Your task to perform on an android device: Open privacy settings Image 0: 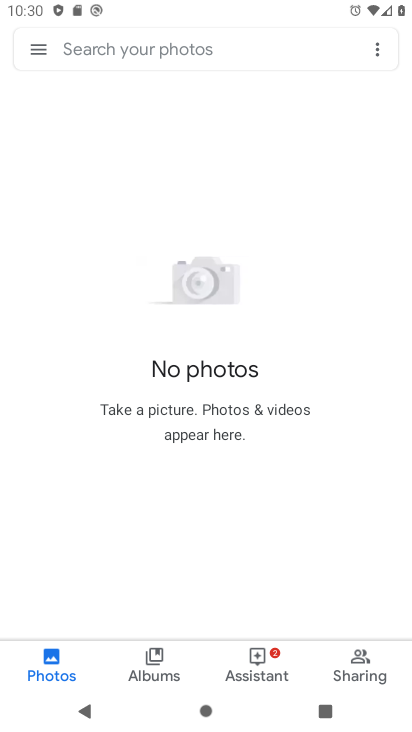
Step 0: press back button
Your task to perform on an android device: Open privacy settings Image 1: 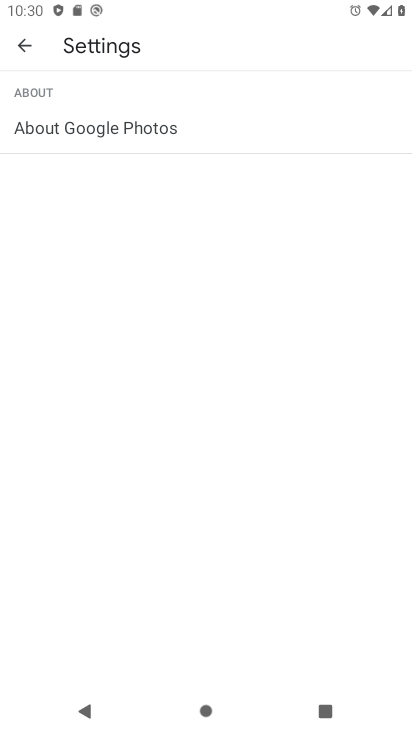
Step 1: press back button
Your task to perform on an android device: Open privacy settings Image 2: 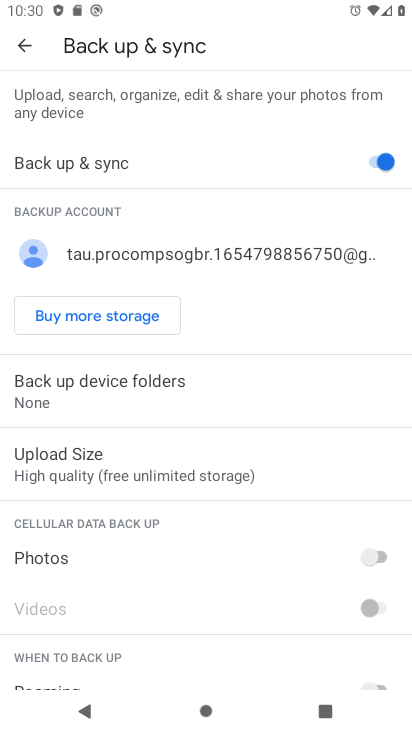
Step 2: press back button
Your task to perform on an android device: Open privacy settings Image 3: 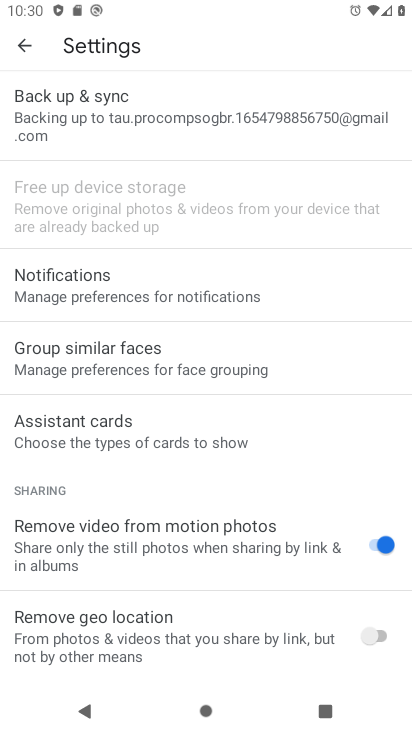
Step 3: press back button
Your task to perform on an android device: Open privacy settings Image 4: 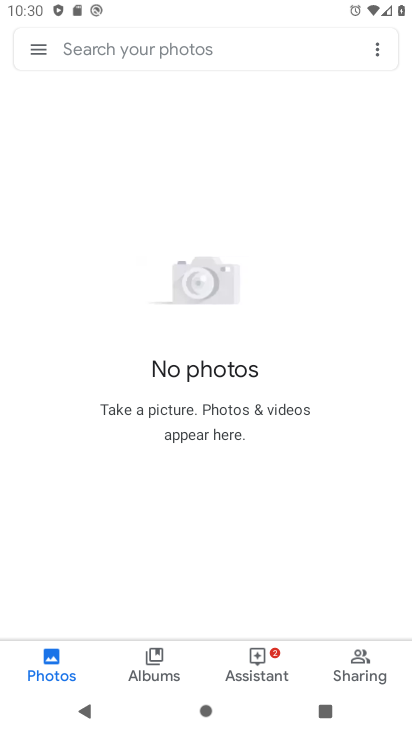
Step 4: press back button
Your task to perform on an android device: Open privacy settings Image 5: 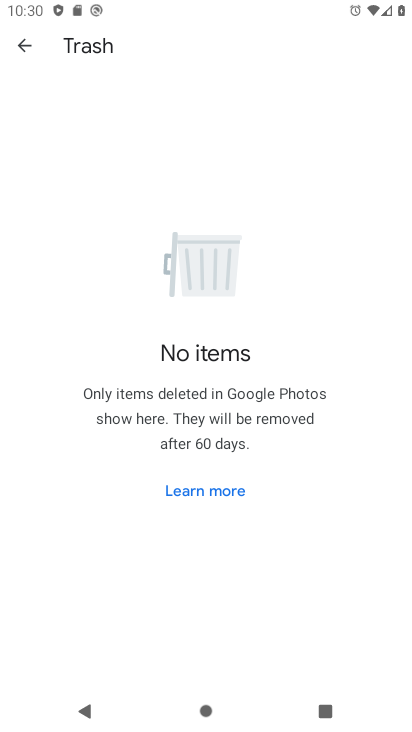
Step 5: press back button
Your task to perform on an android device: Open privacy settings Image 6: 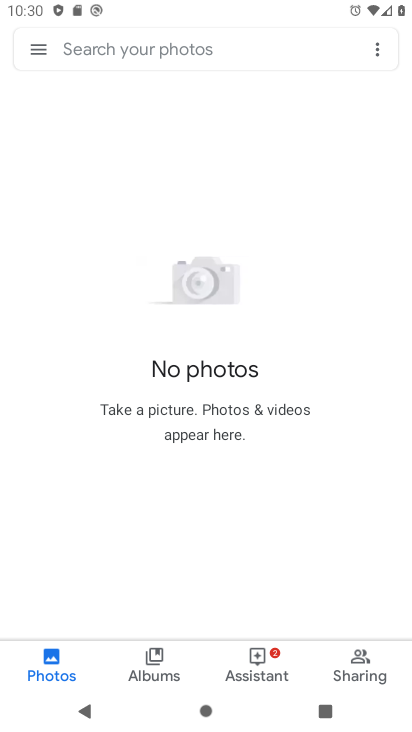
Step 6: press back button
Your task to perform on an android device: Open privacy settings Image 7: 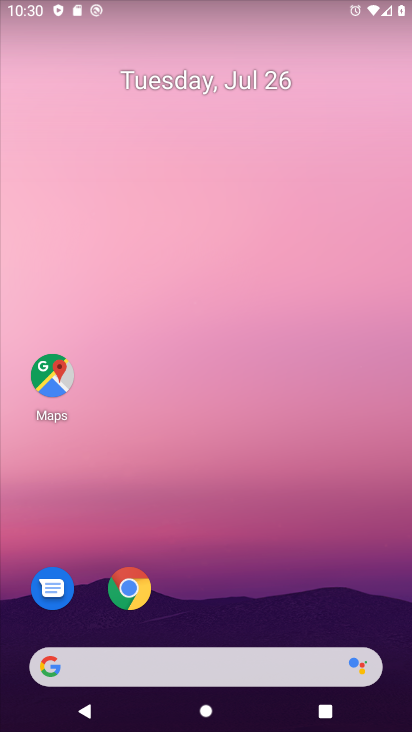
Step 7: click (141, 580)
Your task to perform on an android device: Open privacy settings Image 8: 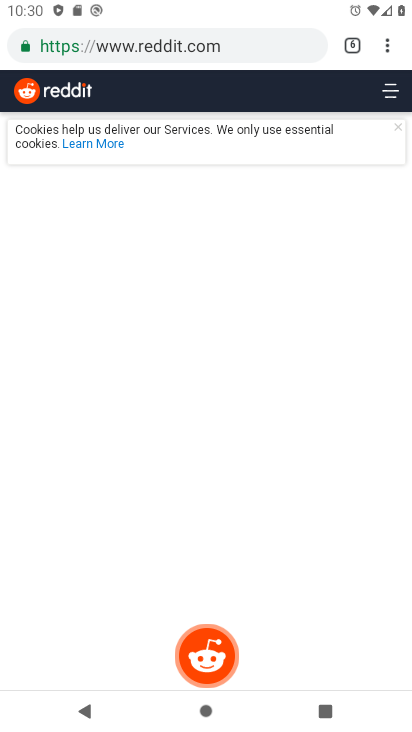
Step 8: drag from (382, 47) to (244, 552)
Your task to perform on an android device: Open privacy settings Image 9: 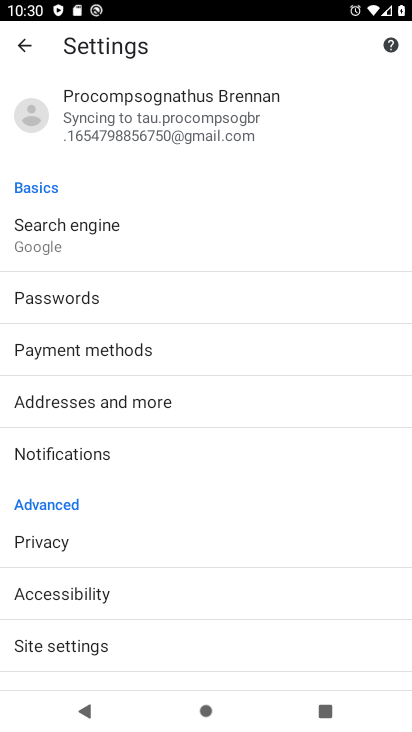
Step 9: click (70, 542)
Your task to perform on an android device: Open privacy settings Image 10: 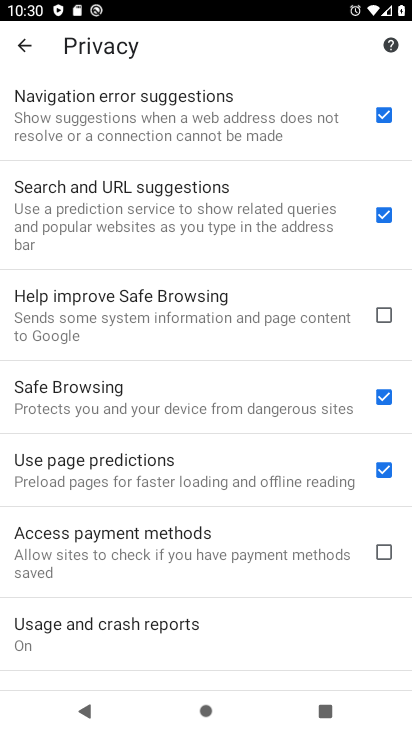
Step 10: task complete